Your task to perform on an android device: Open Chrome and go to the settings page Image 0: 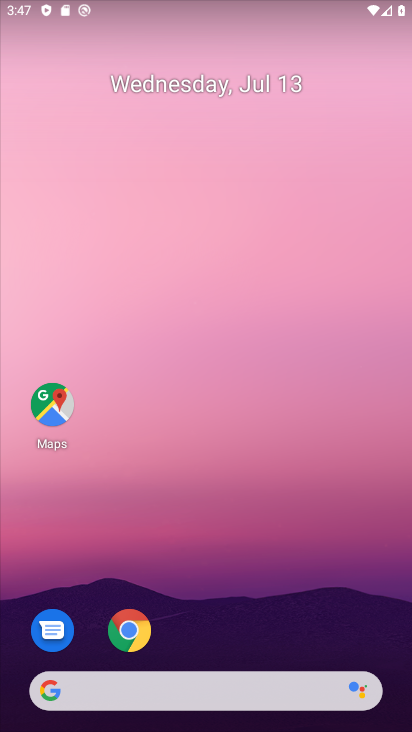
Step 0: click (134, 623)
Your task to perform on an android device: Open Chrome and go to the settings page Image 1: 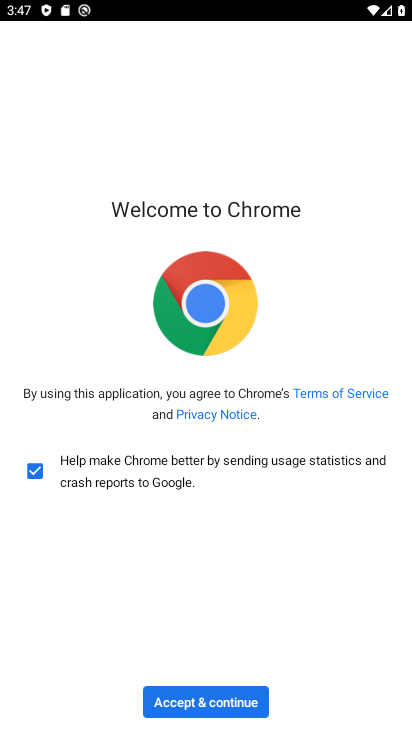
Step 1: click (191, 693)
Your task to perform on an android device: Open Chrome and go to the settings page Image 2: 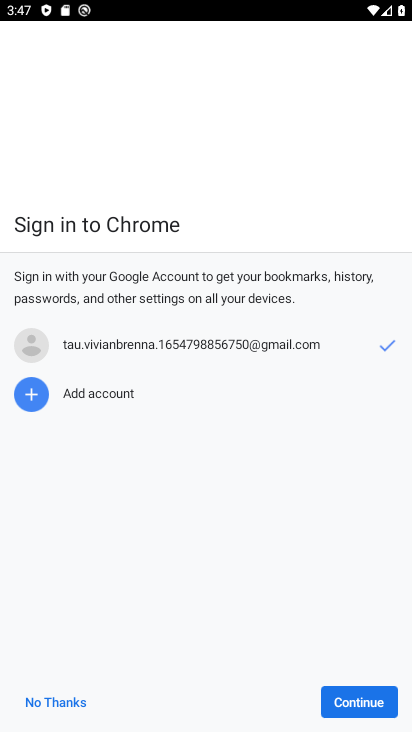
Step 2: click (376, 698)
Your task to perform on an android device: Open Chrome and go to the settings page Image 3: 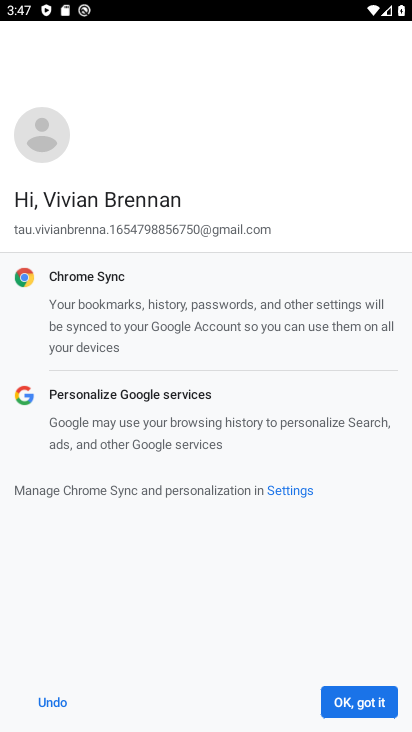
Step 3: click (376, 698)
Your task to perform on an android device: Open Chrome and go to the settings page Image 4: 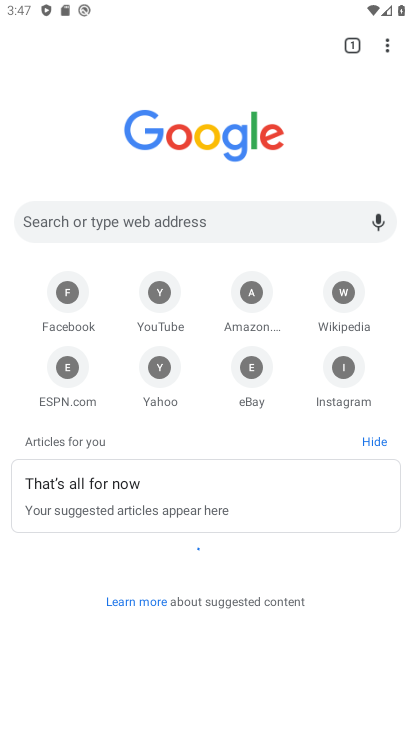
Step 4: click (389, 40)
Your task to perform on an android device: Open Chrome and go to the settings page Image 5: 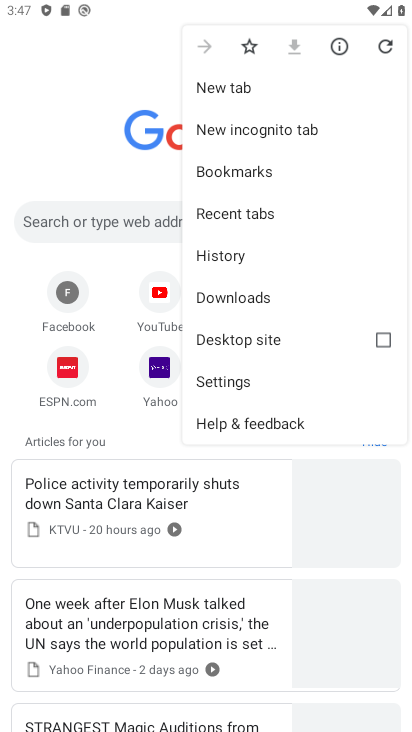
Step 5: click (257, 374)
Your task to perform on an android device: Open Chrome and go to the settings page Image 6: 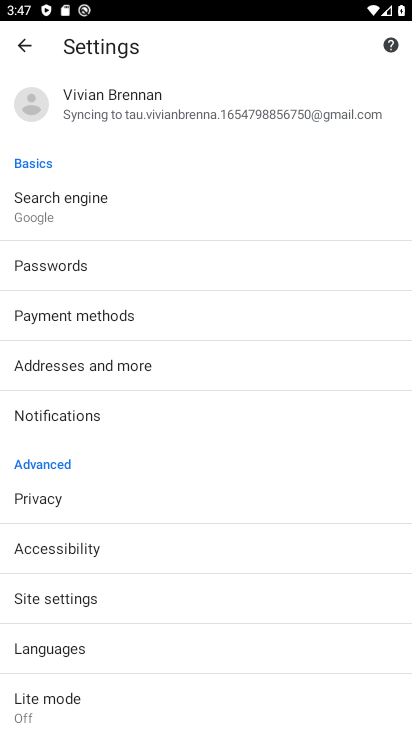
Step 6: task complete